Your task to perform on an android device: turn off location Image 0: 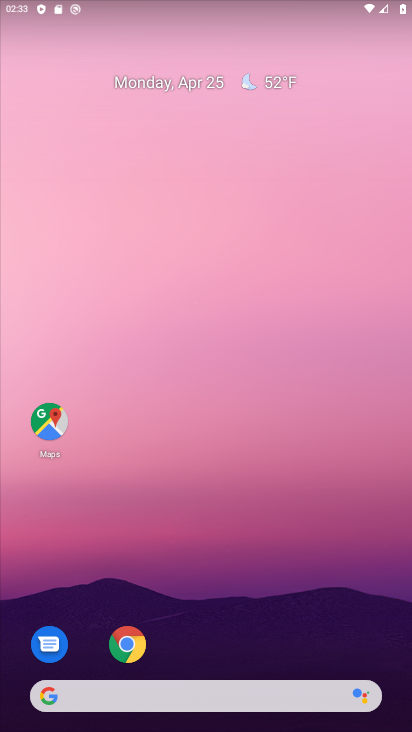
Step 0: drag from (241, 601) to (248, 199)
Your task to perform on an android device: turn off location Image 1: 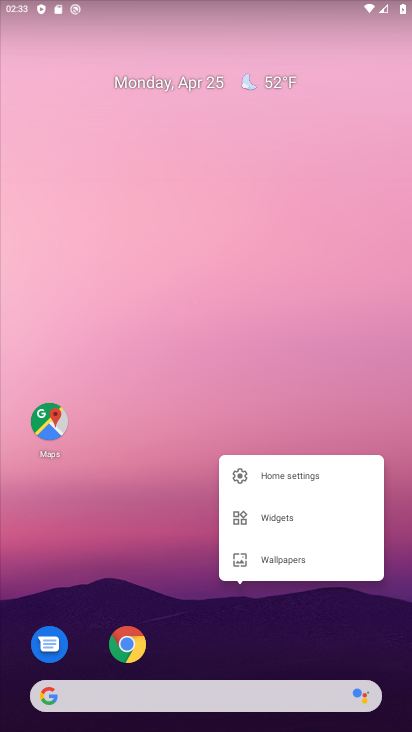
Step 1: click (169, 522)
Your task to perform on an android device: turn off location Image 2: 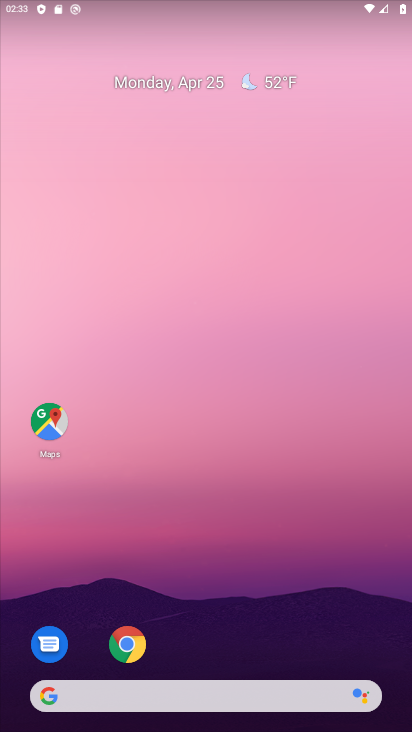
Step 2: drag from (207, 634) to (241, 33)
Your task to perform on an android device: turn off location Image 3: 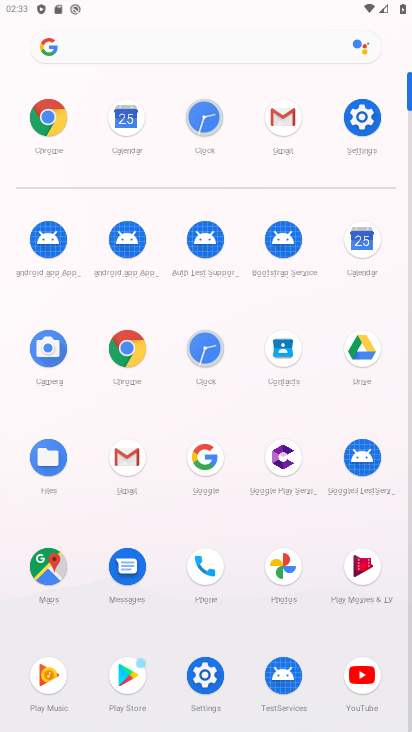
Step 3: click (216, 676)
Your task to perform on an android device: turn off location Image 4: 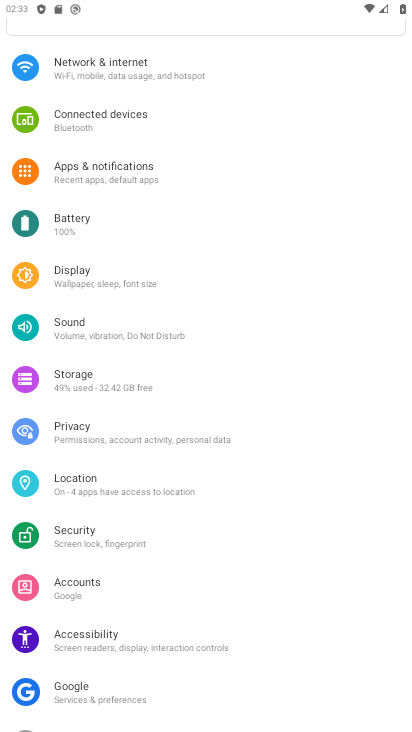
Step 4: click (162, 496)
Your task to perform on an android device: turn off location Image 5: 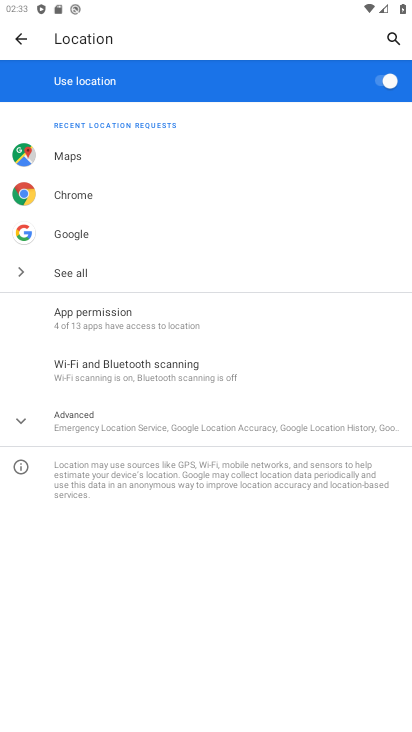
Step 5: click (386, 80)
Your task to perform on an android device: turn off location Image 6: 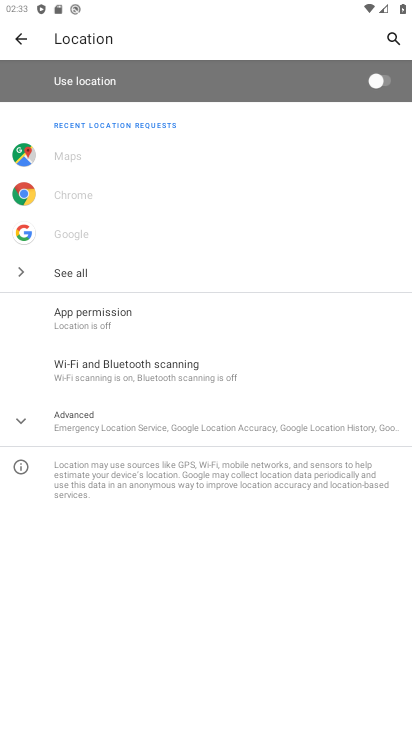
Step 6: task complete